Your task to perform on an android device: Open wifi settings Image 0: 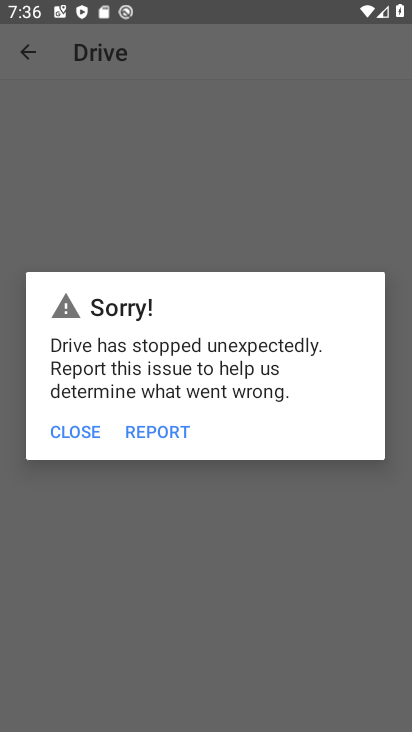
Step 0: press home button
Your task to perform on an android device: Open wifi settings Image 1: 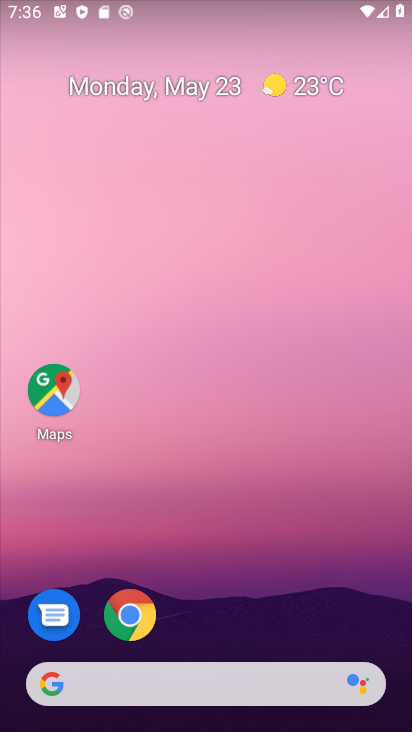
Step 1: drag from (229, 618) to (217, 259)
Your task to perform on an android device: Open wifi settings Image 2: 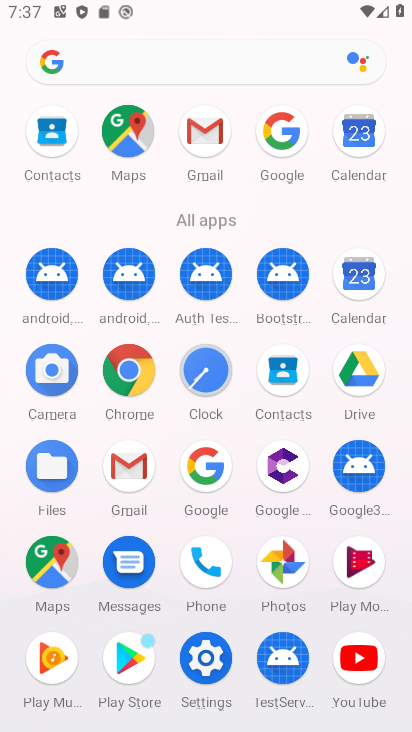
Step 2: click (206, 657)
Your task to perform on an android device: Open wifi settings Image 3: 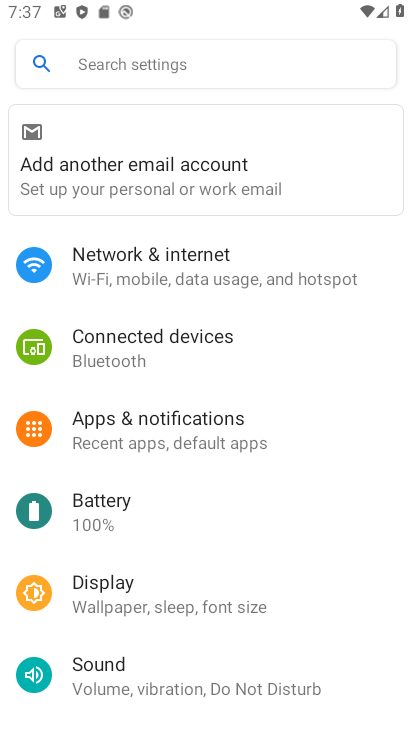
Step 3: click (250, 281)
Your task to perform on an android device: Open wifi settings Image 4: 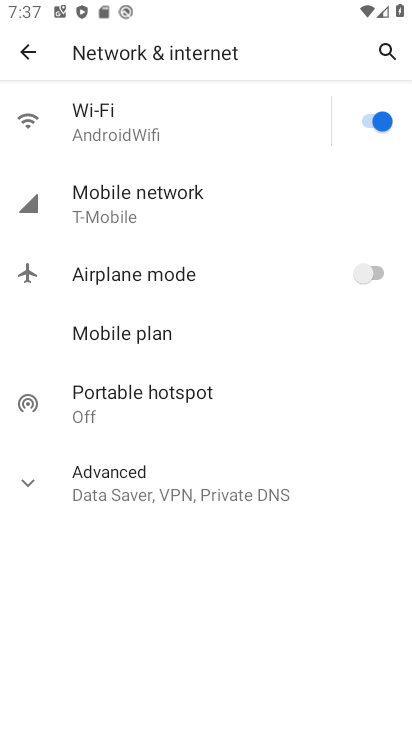
Step 4: click (142, 140)
Your task to perform on an android device: Open wifi settings Image 5: 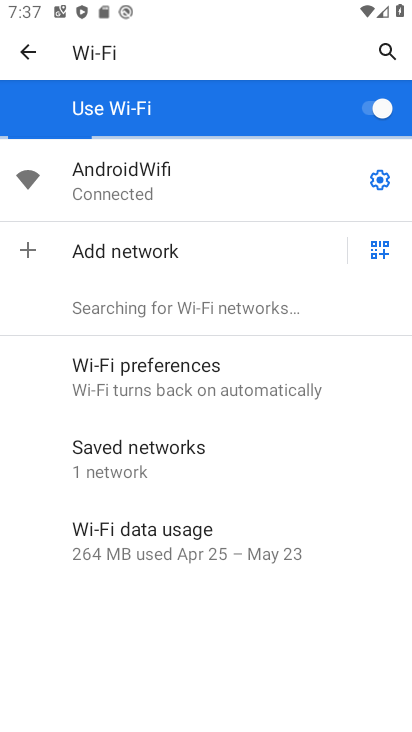
Step 5: click (378, 179)
Your task to perform on an android device: Open wifi settings Image 6: 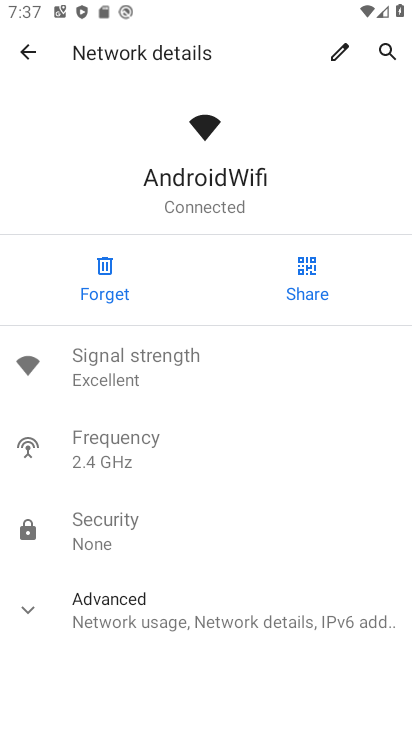
Step 6: task complete